Your task to perform on an android device: find snoozed emails in the gmail app Image 0: 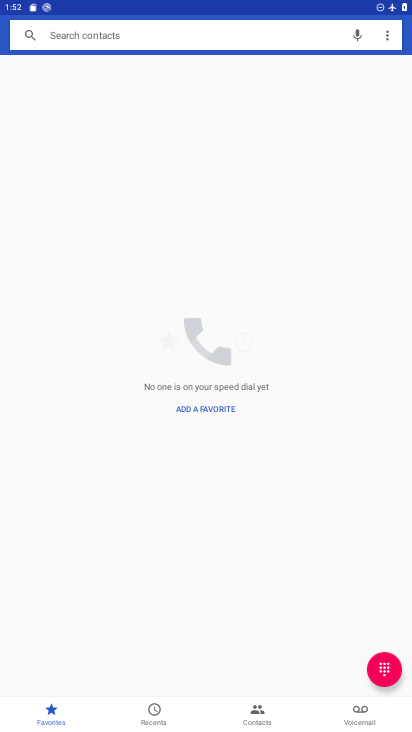
Step 0: press home button
Your task to perform on an android device: find snoozed emails in the gmail app Image 1: 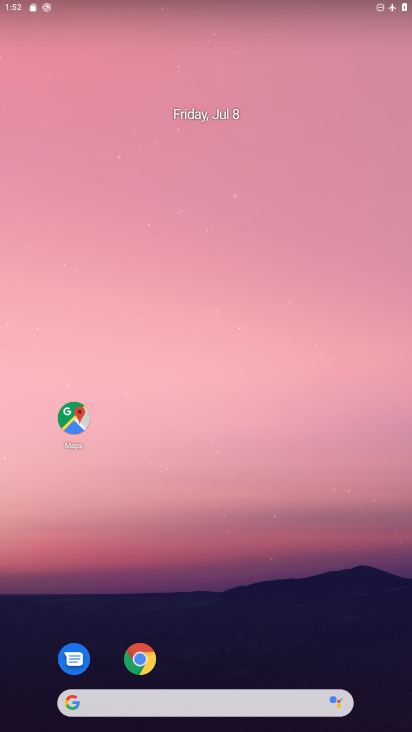
Step 1: drag from (257, 653) to (238, 192)
Your task to perform on an android device: find snoozed emails in the gmail app Image 2: 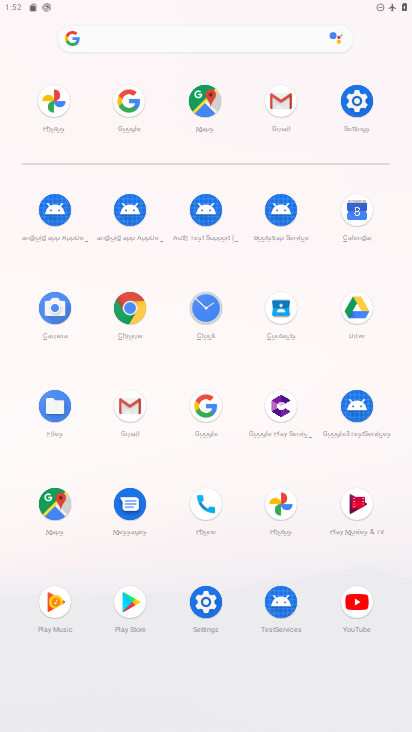
Step 2: click (280, 98)
Your task to perform on an android device: find snoozed emails in the gmail app Image 3: 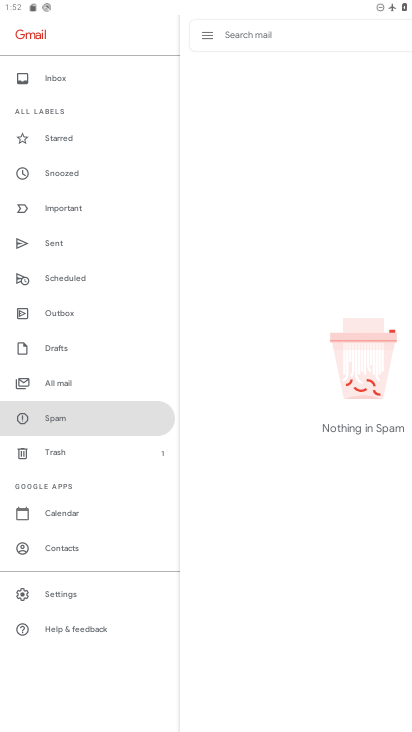
Step 3: click (85, 276)
Your task to perform on an android device: find snoozed emails in the gmail app Image 4: 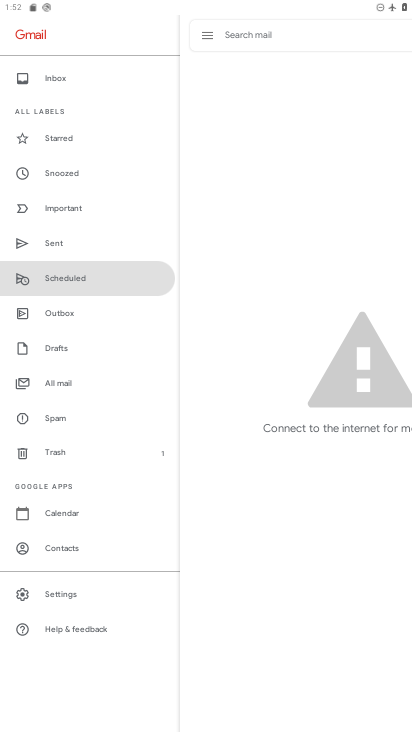
Step 4: task complete